Your task to perform on an android device: Open the phone app and click the voicemail tab. Image 0: 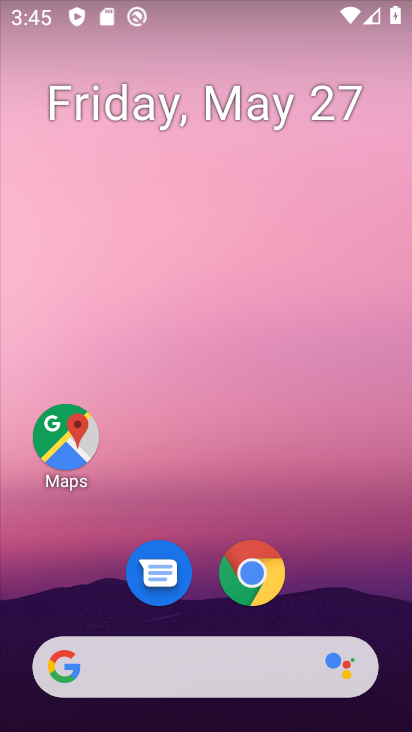
Step 0: drag from (387, 607) to (365, 194)
Your task to perform on an android device: Open the phone app and click the voicemail tab. Image 1: 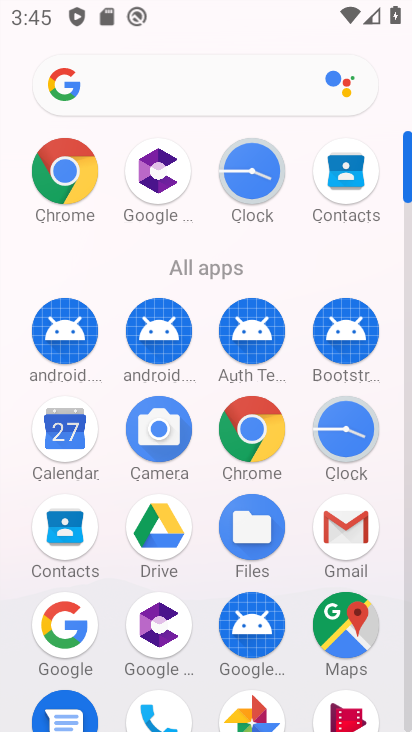
Step 1: drag from (382, 661) to (379, 389)
Your task to perform on an android device: Open the phone app and click the voicemail tab. Image 2: 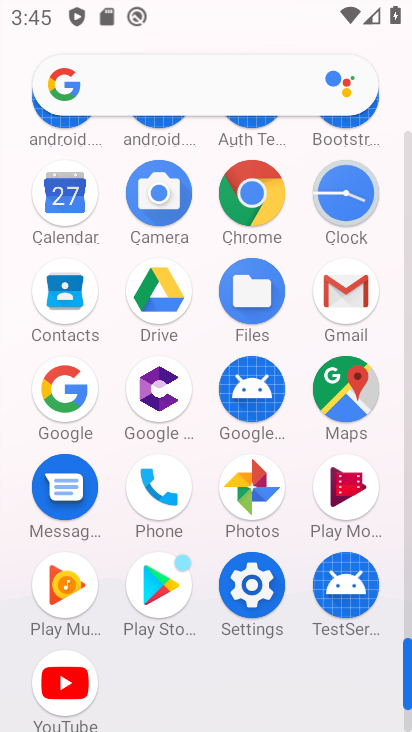
Step 2: click (160, 499)
Your task to perform on an android device: Open the phone app and click the voicemail tab. Image 3: 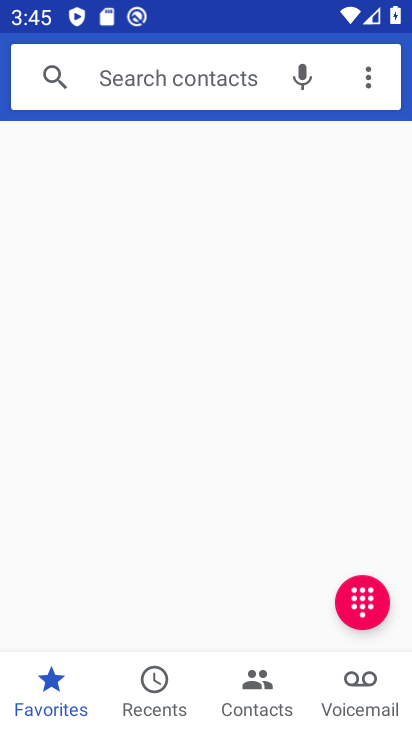
Step 3: click (358, 706)
Your task to perform on an android device: Open the phone app and click the voicemail tab. Image 4: 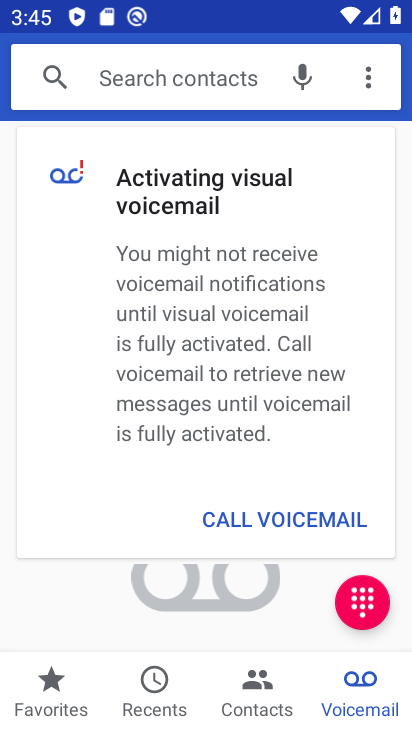
Step 4: task complete